Your task to perform on an android device: Find coffee shops on Maps Image 0: 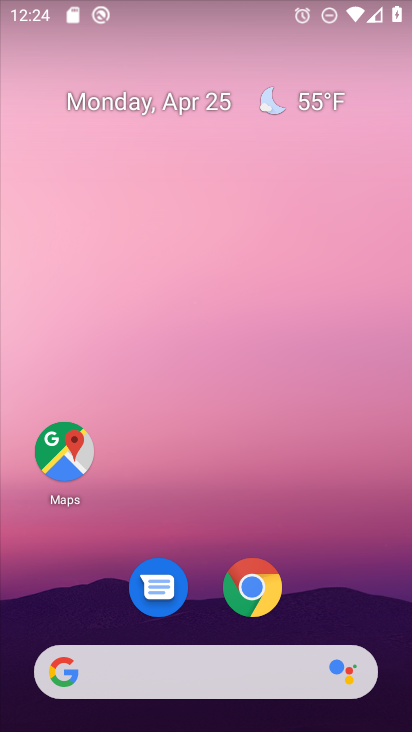
Step 0: drag from (358, 448) to (350, 59)
Your task to perform on an android device: Find coffee shops on Maps Image 1: 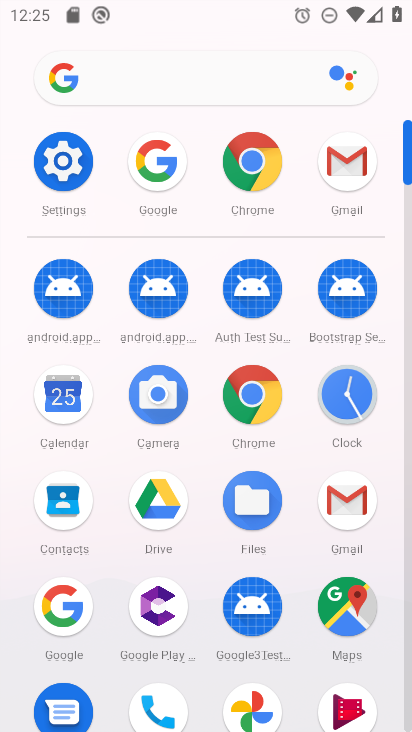
Step 1: click (345, 606)
Your task to perform on an android device: Find coffee shops on Maps Image 2: 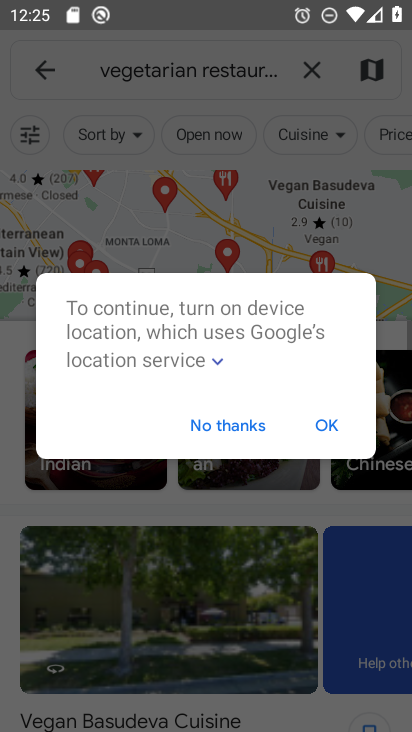
Step 2: click (214, 64)
Your task to perform on an android device: Find coffee shops on Maps Image 3: 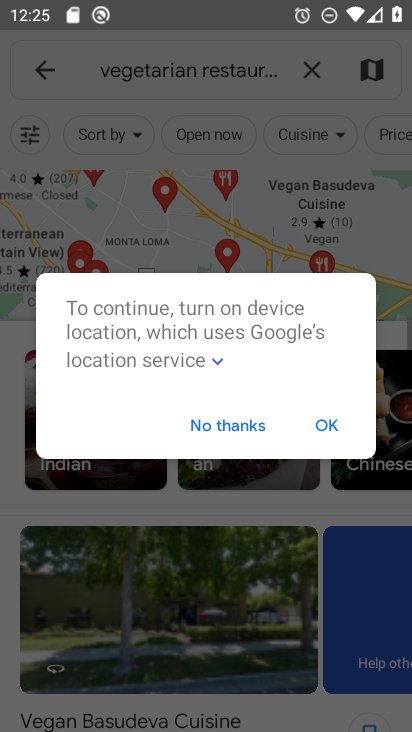
Step 3: click (246, 434)
Your task to perform on an android device: Find coffee shops on Maps Image 4: 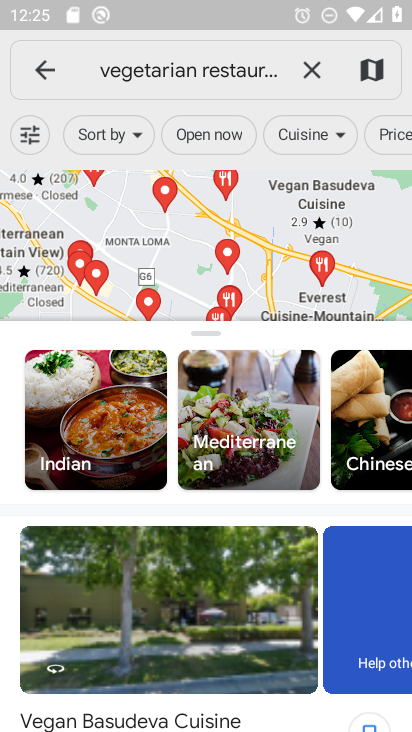
Step 4: click (238, 59)
Your task to perform on an android device: Find coffee shops on Maps Image 5: 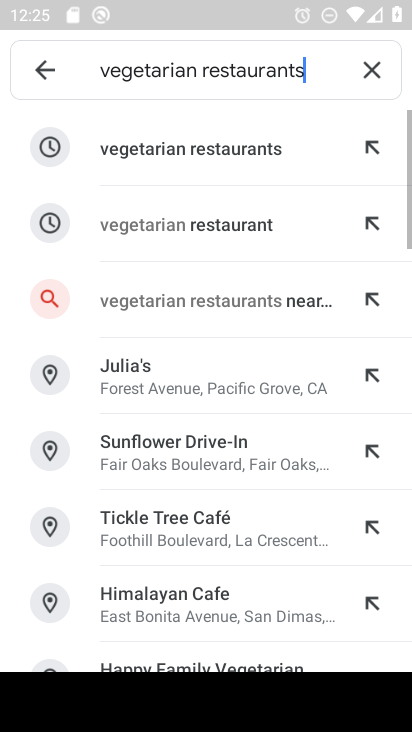
Step 5: click (373, 64)
Your task to perform on an android device: Find coffee shops on Maps Image 6: 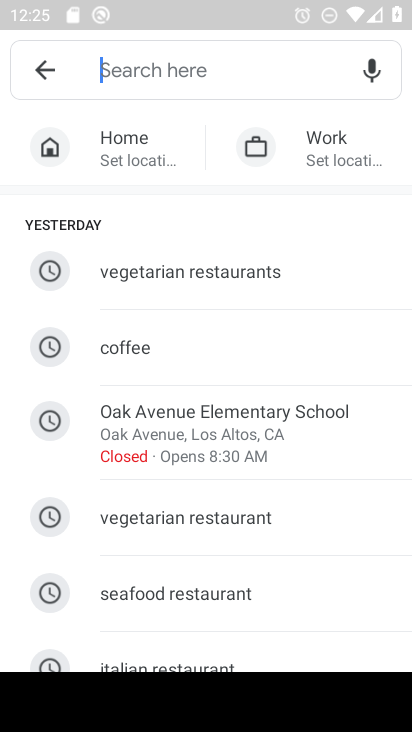
Step 6: type ""
Your task to perform on an android device: Find coffee shops on Maps Image 7: 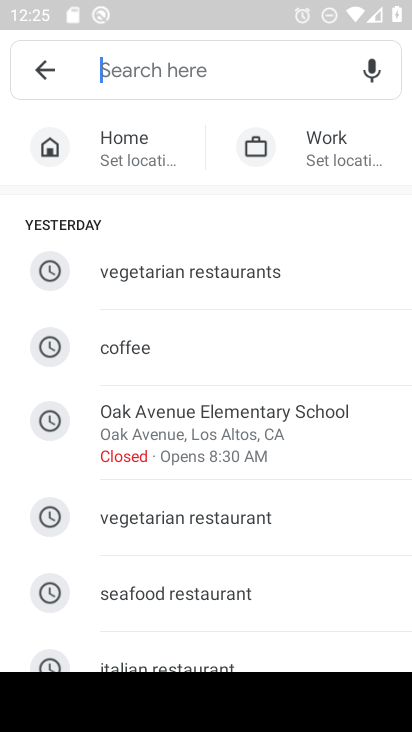
Step 7: type "coffee shops"
Your task to perform on an android device: Find coffee shops on Maps Image 8: 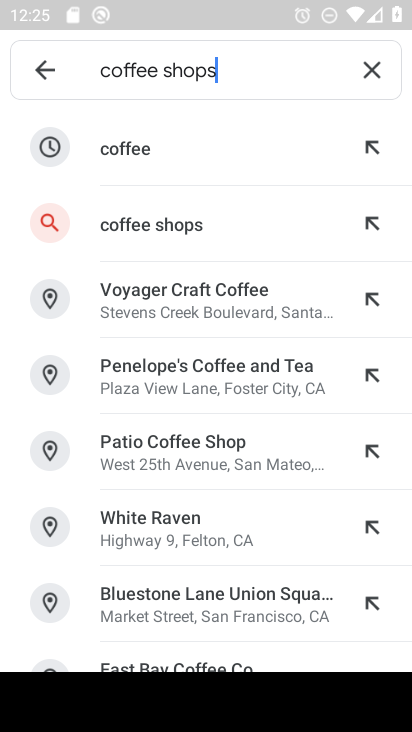
Step 8: click (186, 222)
Your task to perform on an android device: Find coffee shops on Maps Image 9: 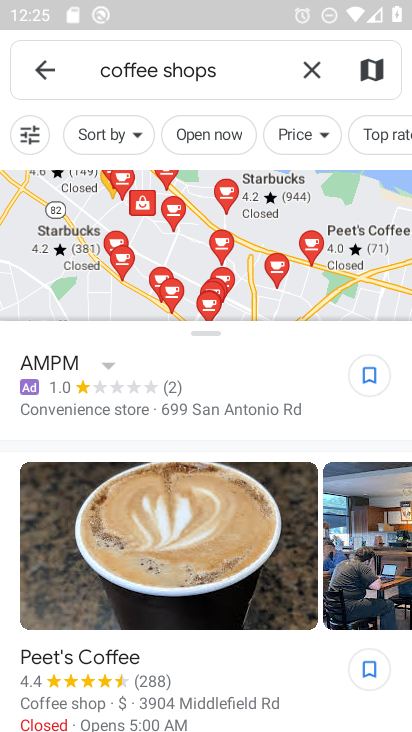
Step 9: task complete